Your task to perform on an android device: toggle data saver in the chrome app Image 0: 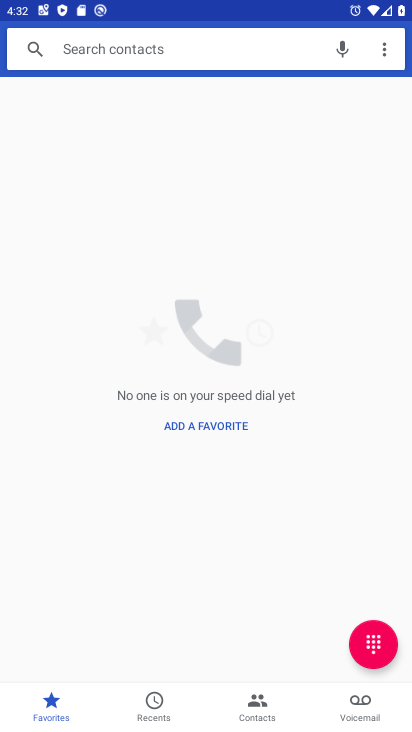
Step 0: press home button
Your task to perform on an android device: toggle data saver in the chrome app Image 1: 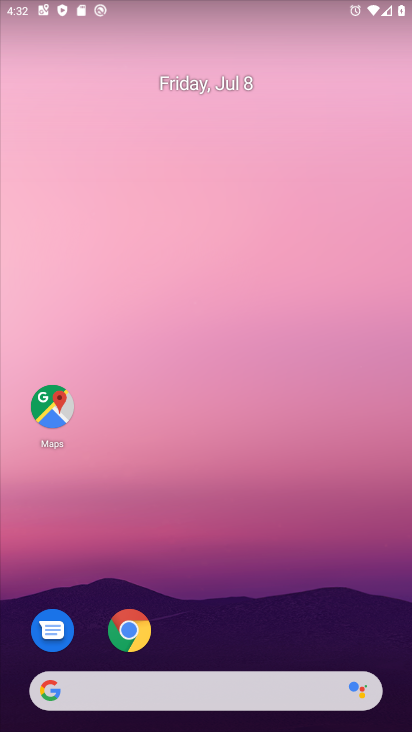
Step 1: click (130, 628)
Your task to perform on an android device: toggle data saver in the chrome app Image 2: 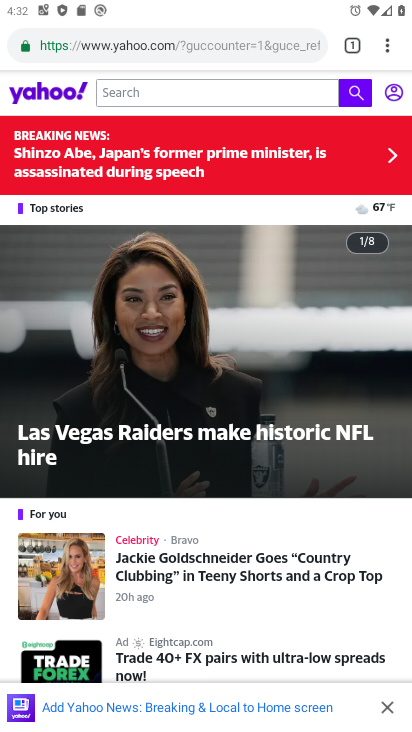
Step 2: click (388, 48)
Your task to perform on an android device: toggle data saver in the chrome app Image 3: 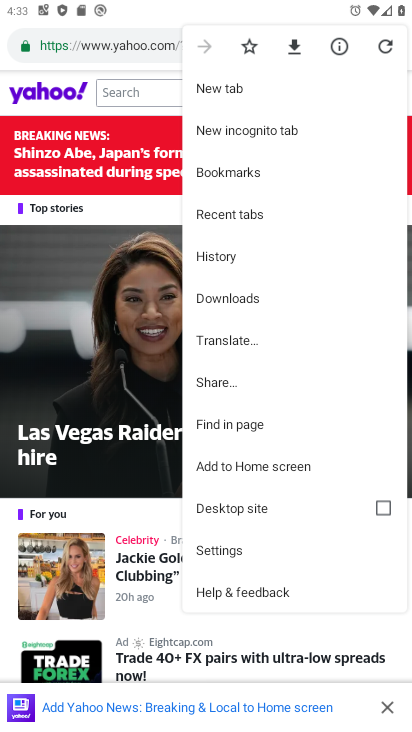
Step 3: click (231, 546)
Your task to perform on an android device: toggle data saver in the chrome app Image 4: 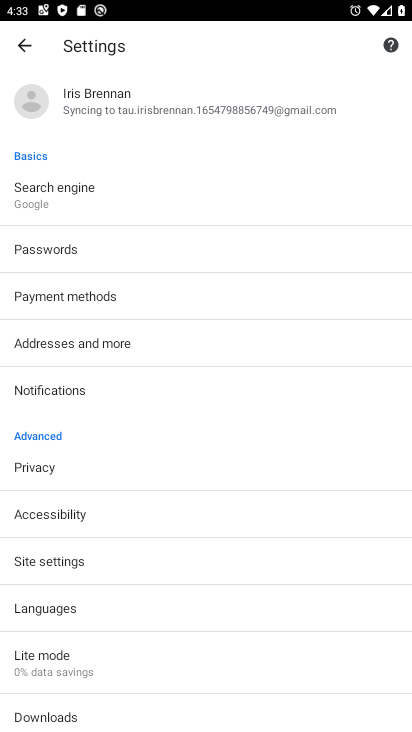
Step 4: click (74, 656)
Your task to perform on an android device: toggle data saver in the chrome app Image 5: 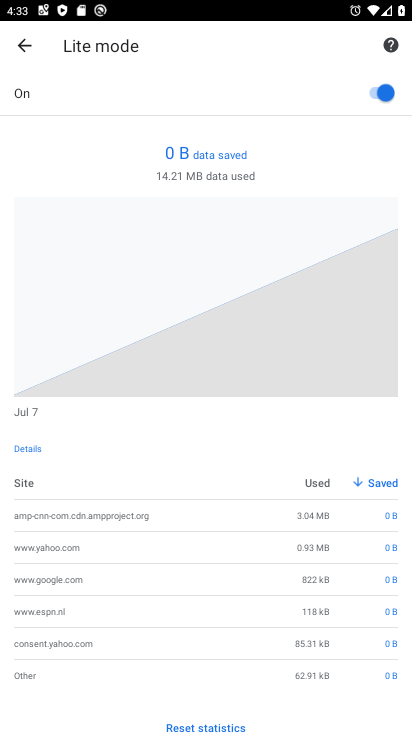
Step 5: click (386, 94)
Your task to perform on an android device: toggle data saver in the chrome app Image 6: 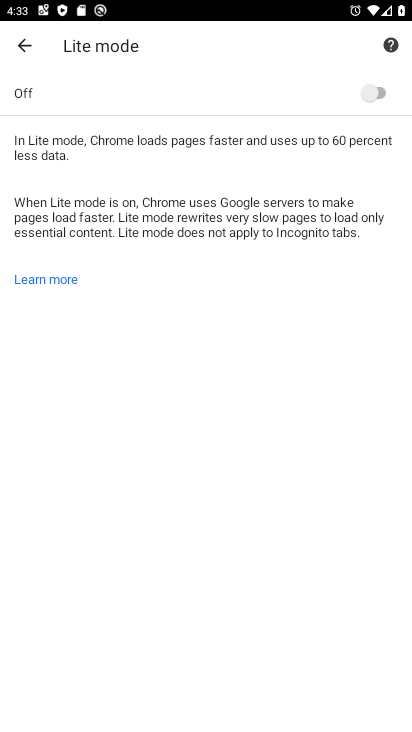
Step 6: task complete